Your task to perform on an android device: Open the calendar app, open the side menu, and click the "Day" option Image 0: 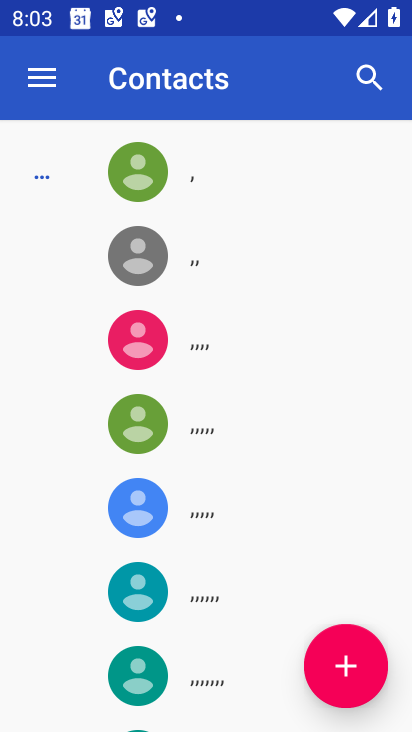
Step 0: press home button
Your task to perform on an android device: Open the calendar app, open the side menu, and click the "Day" option Image 1: 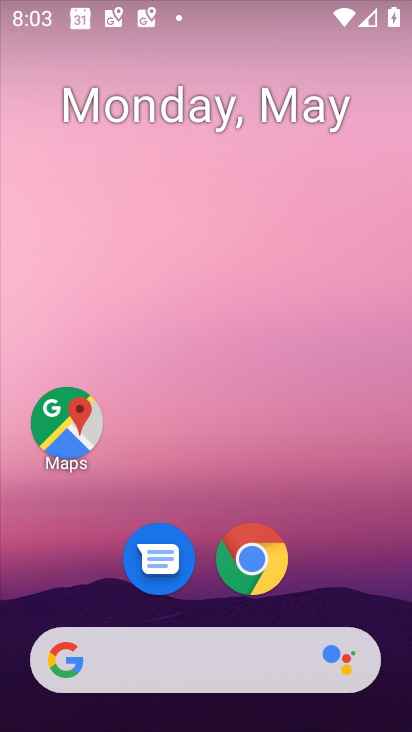
Step 1: drag from (396, 623) to (272, 165)
Your task to perform on an android device: Open the calendar app, open the side menu, and click the "Day" option Image 2: 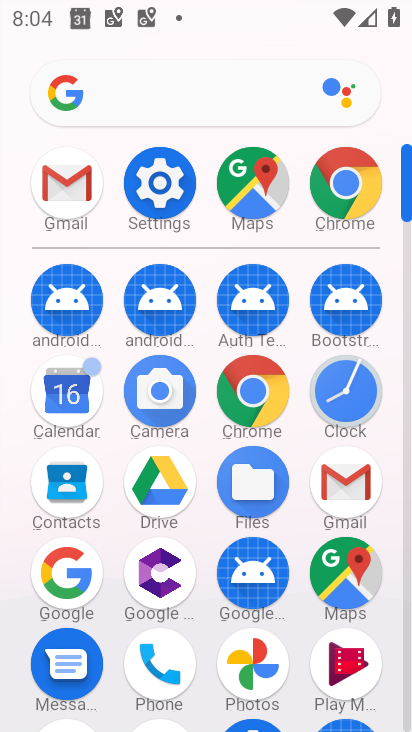
Step 2: click (70, 399)
Your task to perform on an android device: Open the calendar app, open the side menu, and click the "Day" option Image 3: 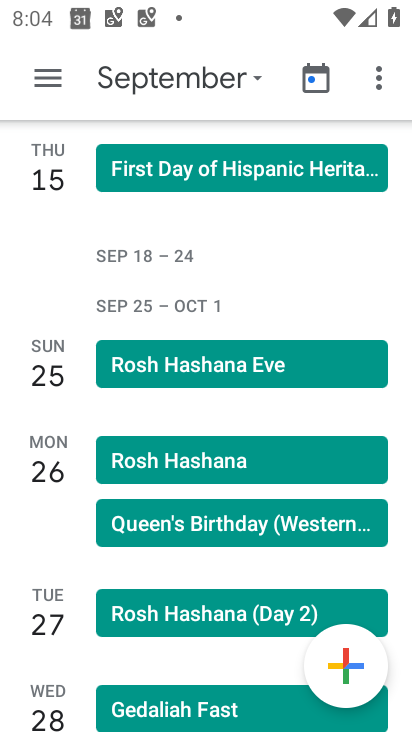
Step 3: click (59, 84)
Your task to perform on an android device: Open the calendar app, open the side menu, and click the "Day" option Image 4: 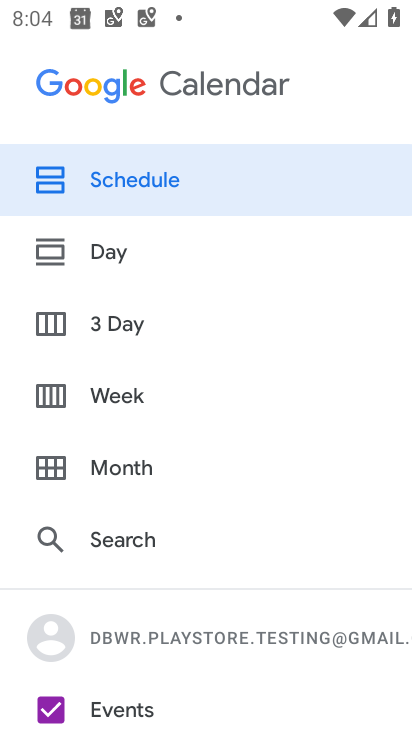
Step 4: click (146, 231)
Your task to perform on an android device: Open the calendar app, open the side menu, and click the "Day" option Image 5: 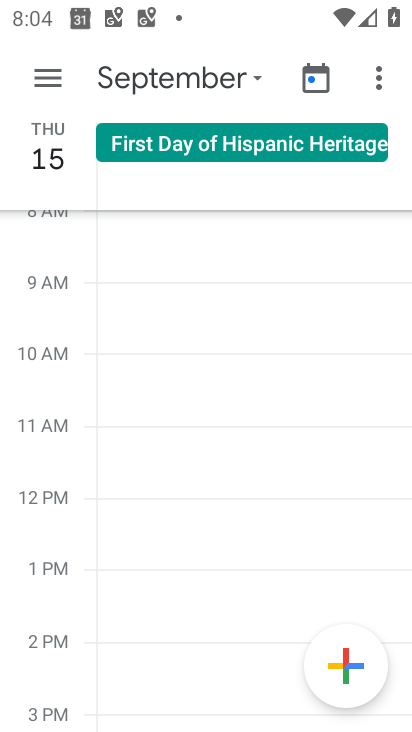
Step 5: task complete